Your task to perform on an android device: Go to battery settings Image 0: 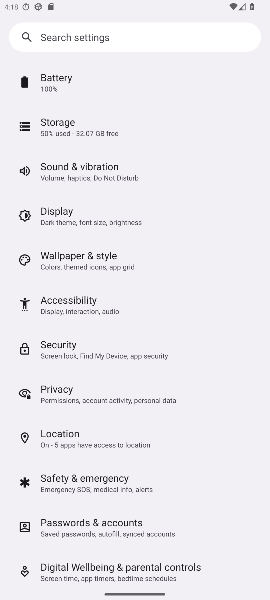
Step 0: click (75, 80)
Your task to perform on an android device: Go to battery settings Image 1: 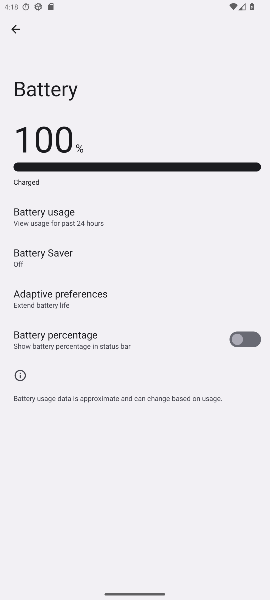
Step 1: task complete